Your task to perform on an android device: turn on data saver in the chrome app Image 0: 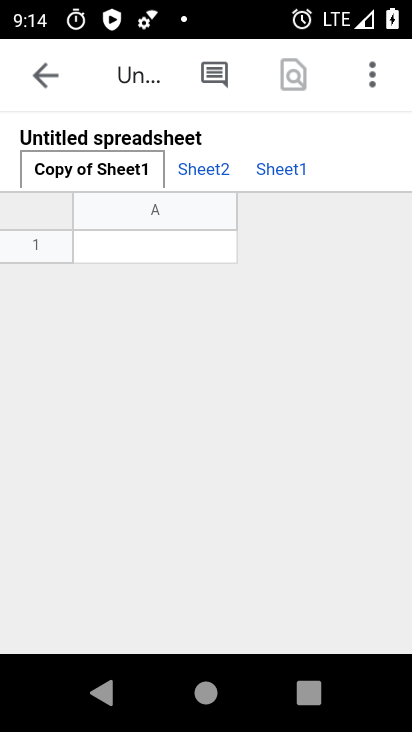
Step 0: press home button
Your task to perform on an android device: turn on data saver in the chrome app Image 1: 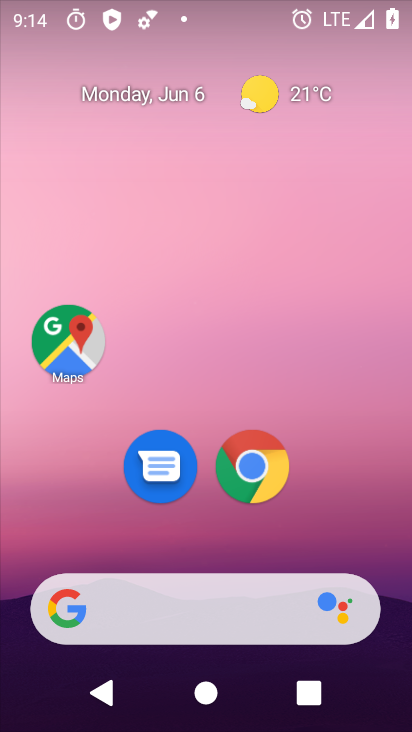
Step 1: drag from (189, 563) to (217, 68)
Your task to perform on an android device: turn on data saver in the chrome app Image 2: 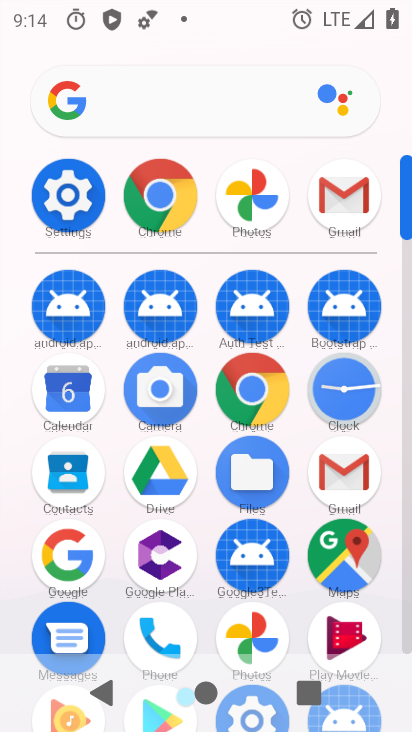
Step 2: click (293, 393)
Your task to perform on an android device: turn on data saver in the chrome app Image 3: 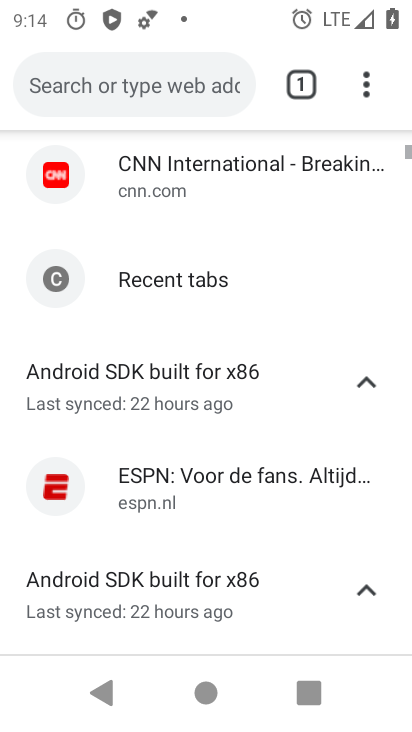
Step 3: drag from (248, 584) to (259, 386)
Your task to perform on an android device: turn on data saver in the chrome app Image 4: 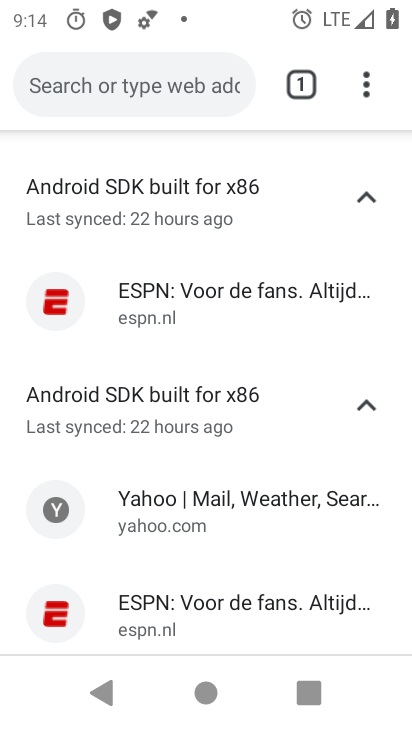
Step 4: drag from (378, 76) to (152, 520)
Your task to perform on an android device: turn on data saver in the chrome app Image 5: 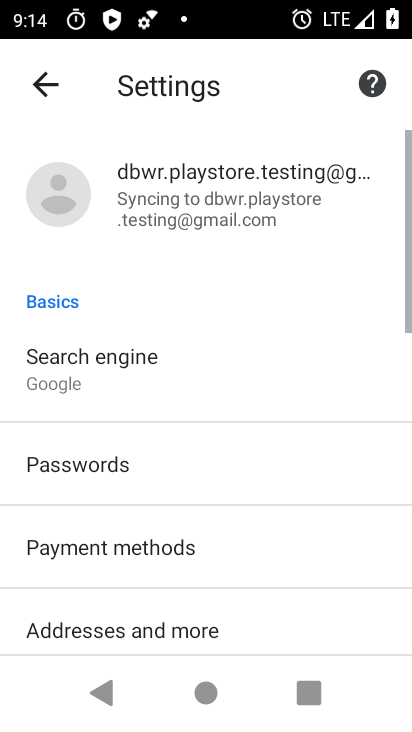
Step 5: drag from (252, 562) to (345, 9)
Your task to perform on an android device: turn on data saver in the chrome app Image 6: 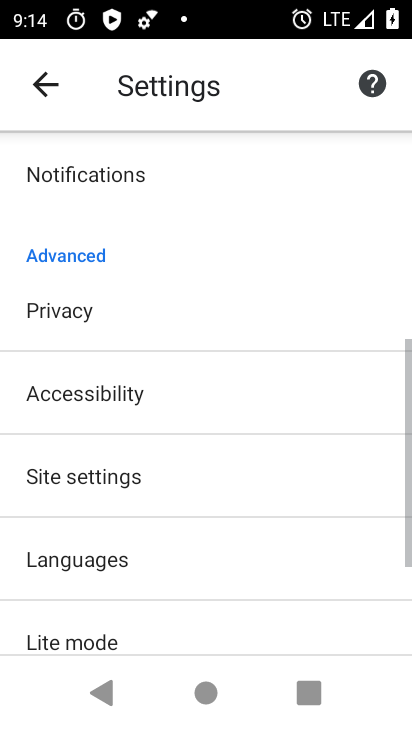
Step 6: drag from (136, 542) to (254, 140)
Your task to perform on an android device: turn on data saver in the chrome app Image 7: 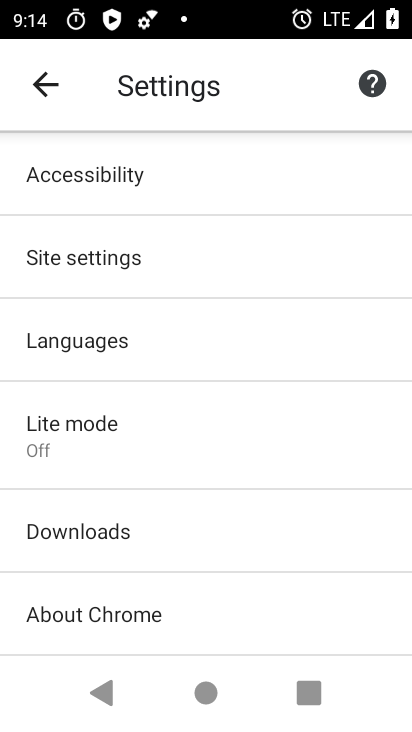
Step 7: click (205, 415)
Your task to perform on an android device: turn on data saver in the chrome app Image 8: 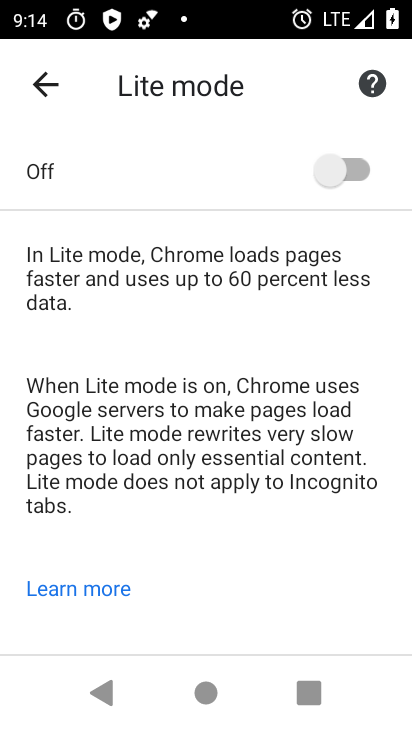
Step 8: click (311, 190)
Your task to perform on an android device: turn on data saver in the chrome app Image 9: 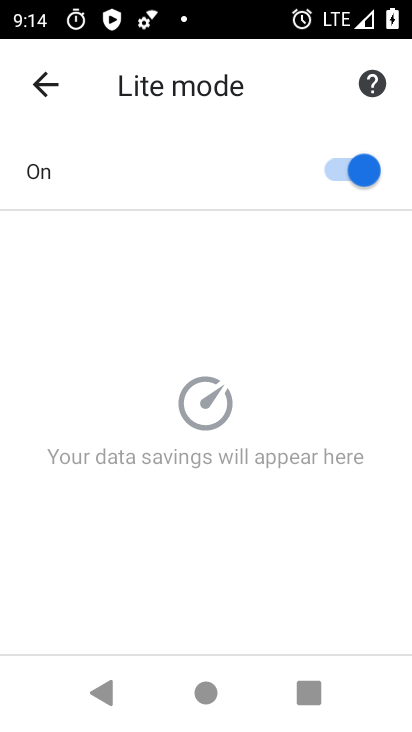
Step 9: task complete